Your task to perform on an android device: change the upload size in google photos Image 0: 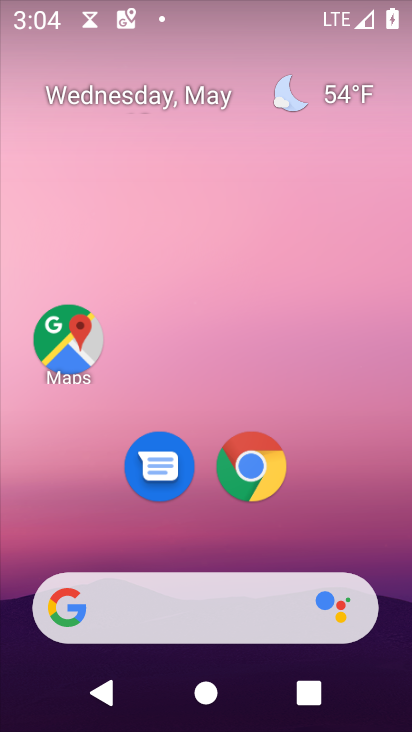
Step 0: drag from (378, 534) to (300, 24)
Your task to perform on an android device: change the upload size in google photos Image 1: 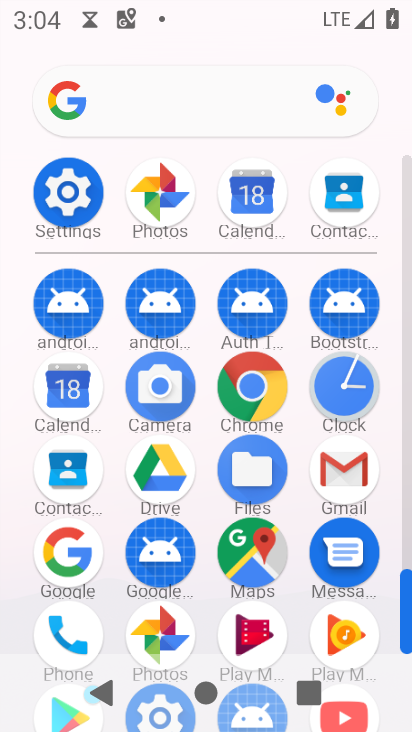
Step 1: click (159, 170)
Your task to perform on an android device: change the upload size in google photos Image 2: 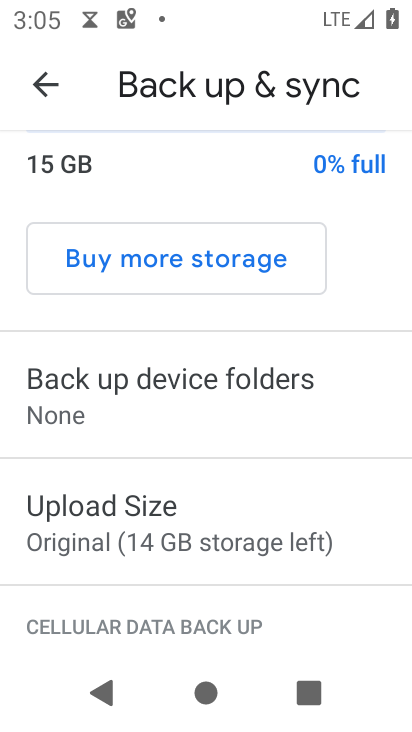
Step 2: click (274, 564)
Your task to perform on an android device: change the upload size in google photos Image 3: 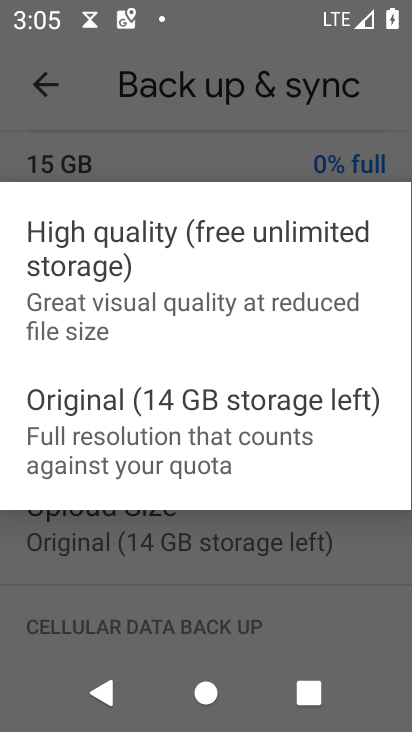
Step 3: click (250, 470)
Your task to perform on an android device: change the upload size in google photos Image 4: 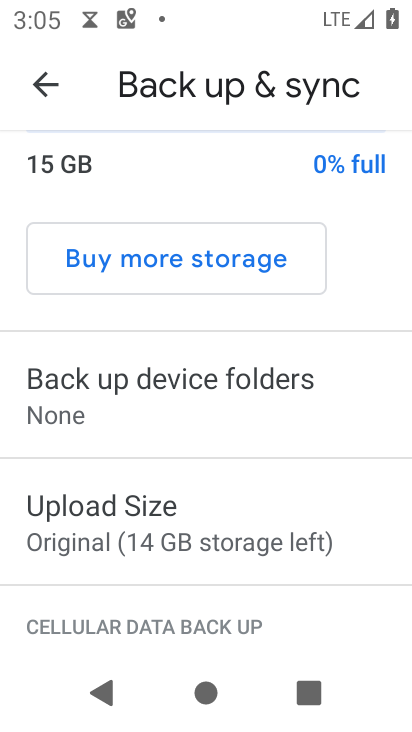
Step 4: task complete